Your task to perform on an android device: Open Google Chrome Image 0: 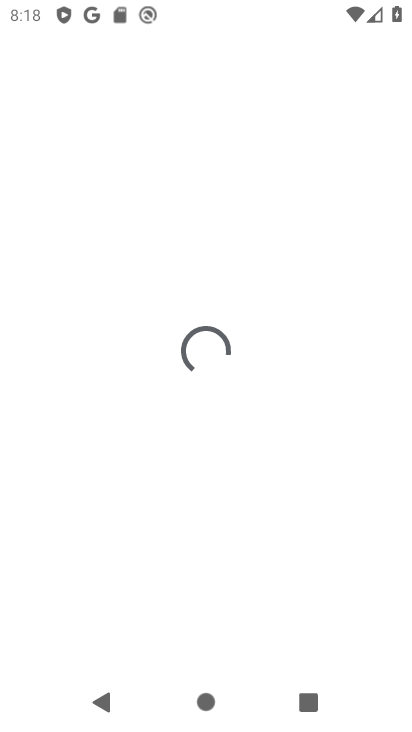
Step 0: press home button
Your task to perform on an android device: Open Google Chrome Image 1: 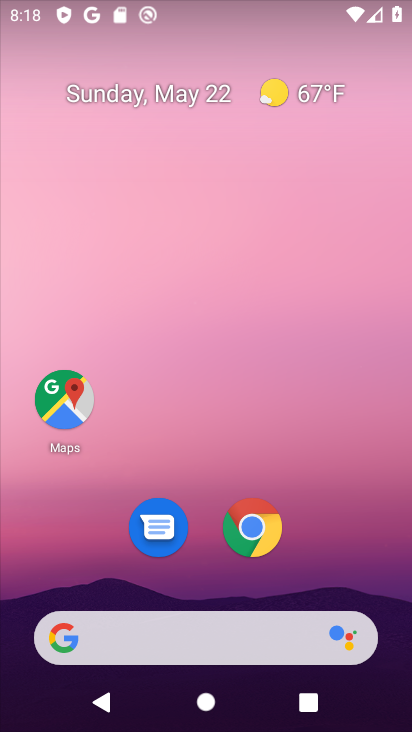
Step 1: click (253, 520)
Your task to perform on an android device: Open Google Chrome Image 2: 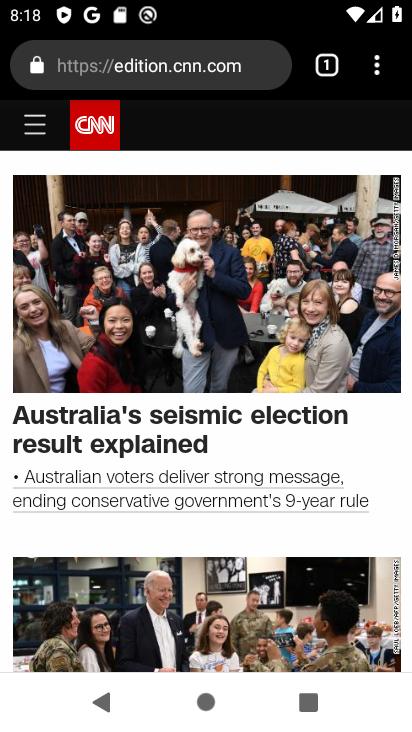
Step 2: click (324, 65)
Your task to perform on an android device: Open Google Chrome Image 3: 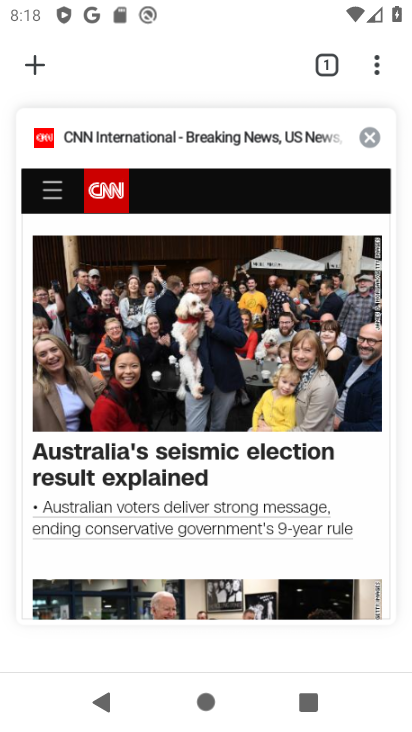
Step 3: click (366, 131)
Your task to perform on an android device: Open Google Chrome Image 4: 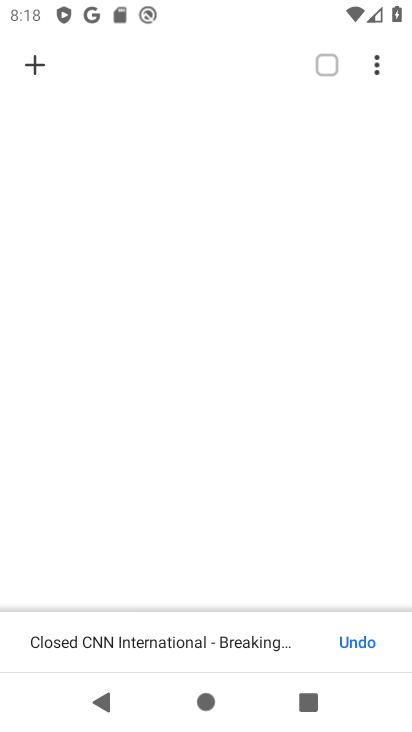
Step 4: click (39, 66)
Your task to perform on an android device: Open Google Chrome Image 5: 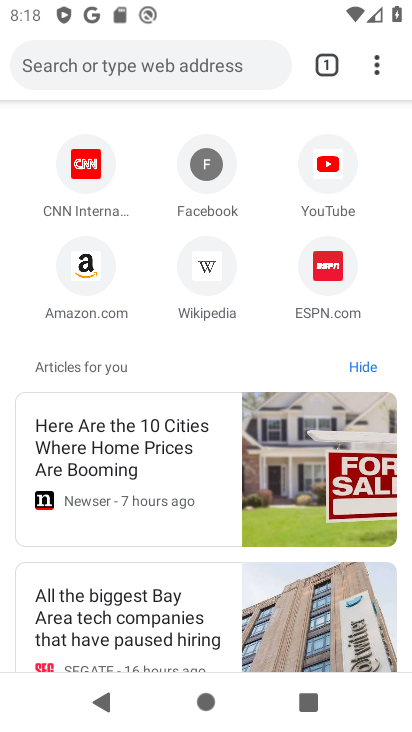
Step 5: task complete